Your task to perform on an android device: Open Google Maps and go to "Timeline" Image 0: 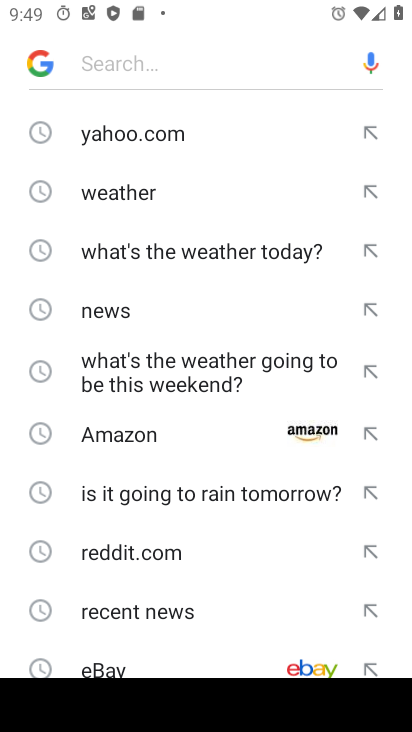
Step 0: press home button
Your task to perform on an android device: Open Google Maps and go to "Timeline" Image 1: 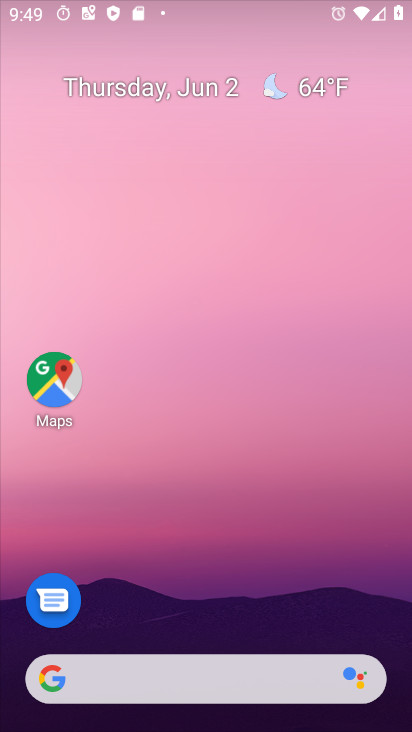
Step 1: click (205, 587)
Your task to perform on an android device: Open Google Maps and go to "Timeline" Image 2: 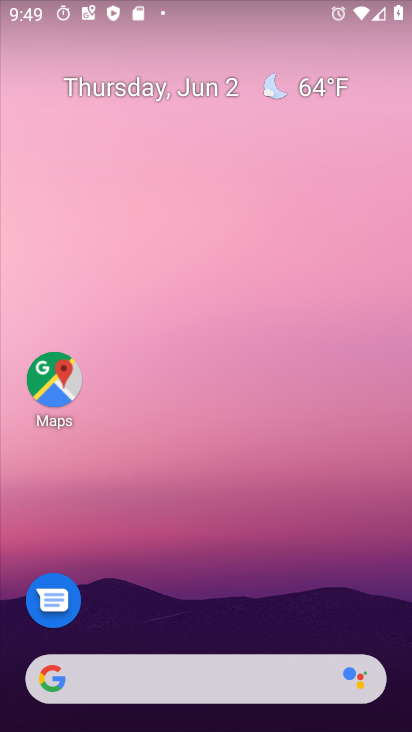
Step 2: click (60, 390)
Your task to perform on an android device: Open Google Maps and go to "Timeline" Image 3: 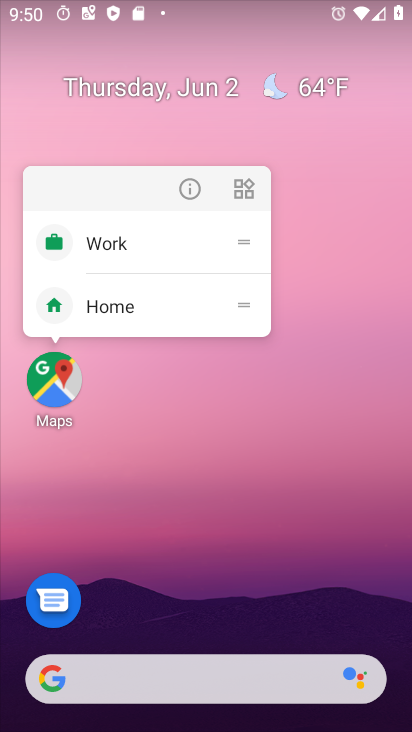
Step 3: click (60, 390)
Your task to perform on an android device: Open Google Maps and go to "Timeline" Image 4: 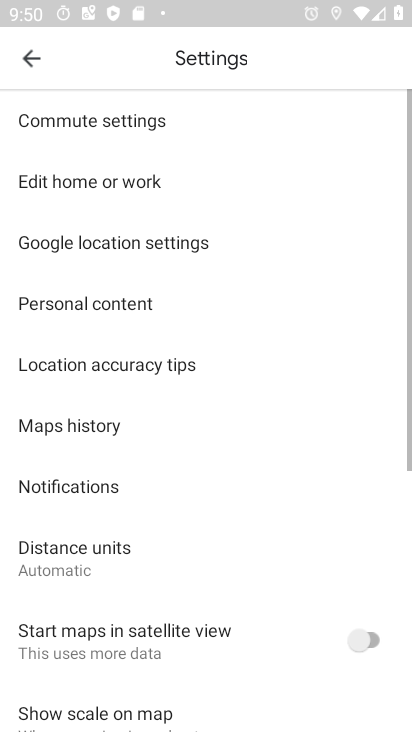
Step 4: press back button
Your task to perform on an android device: Open Google Maps and go to "Timeline" Image 5: 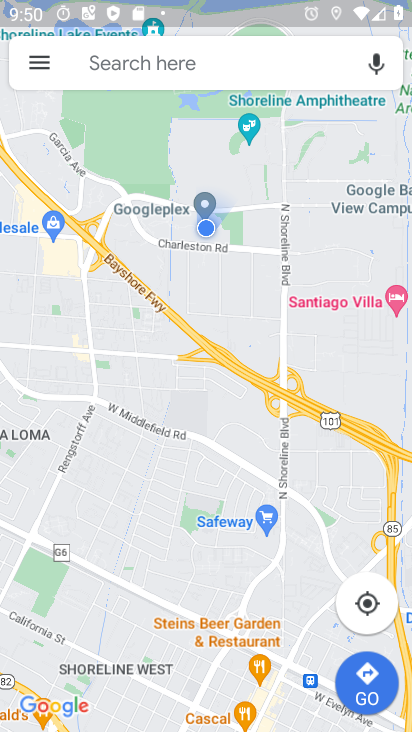
Step 5: click (43, 63)
Your task to perform on an android device: Open Google Maps and go to "Timeline" Image 6: 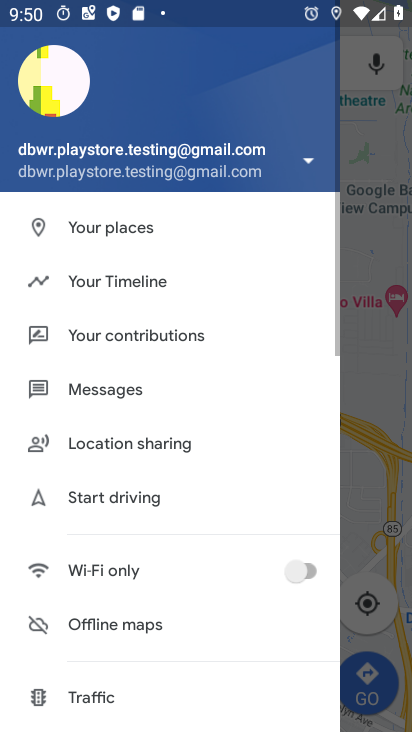
Step 6: click (121, 286)
Your task to perform on an android device: Open Google Maps and go to "Timeline" Image 7: 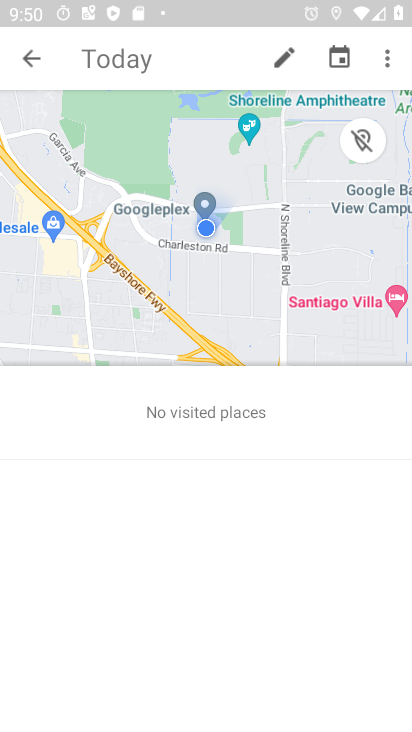
Step 7: task complete